Your task to perform on an android device: Open Google Chrome and open the bookmarks view Image 0: 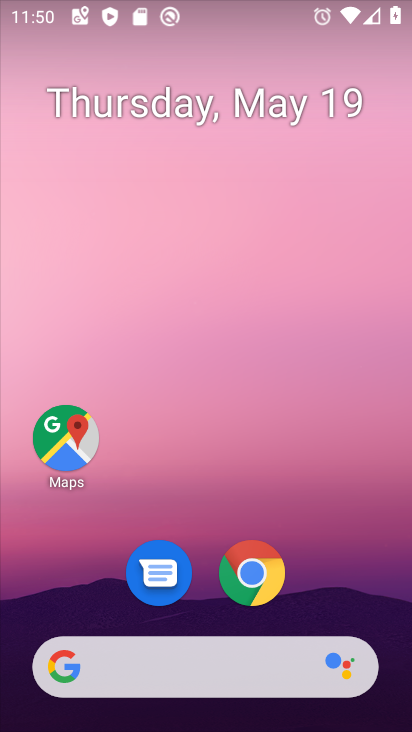
Step 0: click (249, 587)
Your task to perform on an android device: Open Google Chrome and open the bookmarks view Image 1: 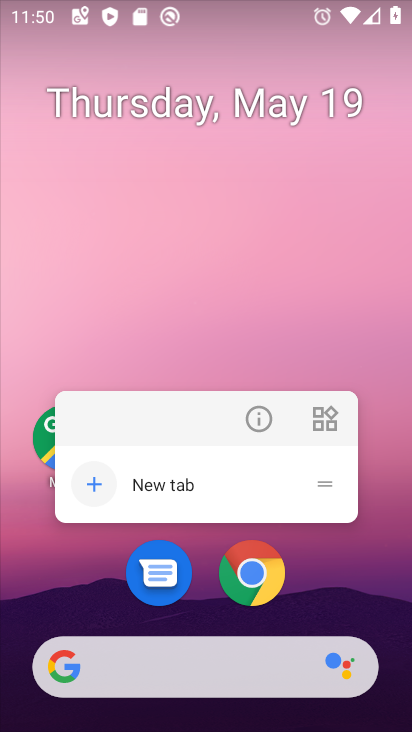
Step 1: click (247, 592)
Your task to perform on an android device: Open Google Chrome and open the bookmarks view Image 2: 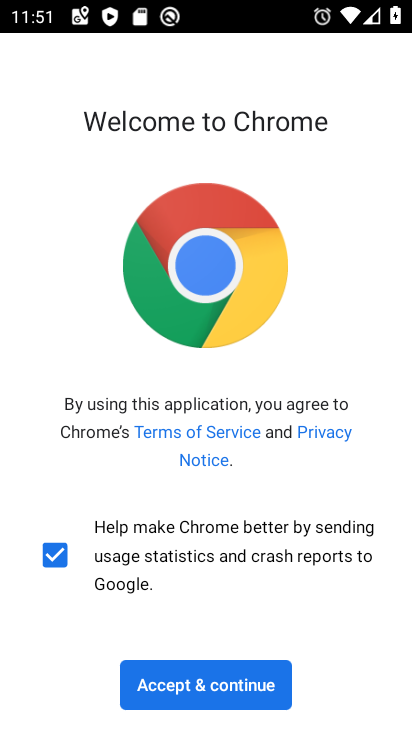
Step 2: click (211, 688)
Your task to perform on an android device: Open Google Chrome and open the bookmarks view Image 3: 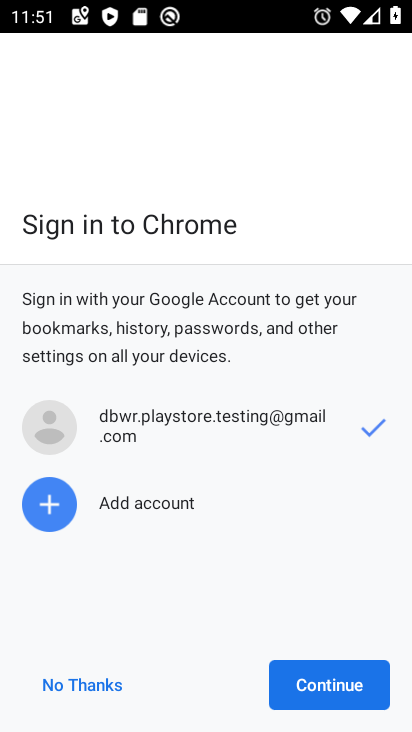
Step 3: click (377, 686)
Your task to perform on an android device: Open Google Chrome and open the bookmarks view Image 4: 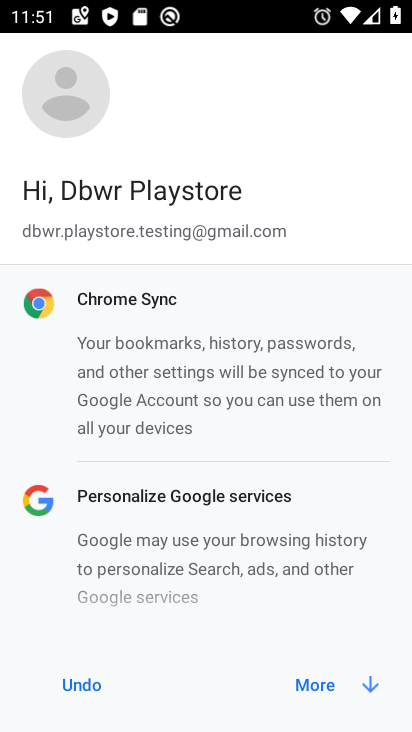
Step 4: click (329, 693)
Your task to perform on an android device: Open Google Chrome and open the bookmarks view Image 5: 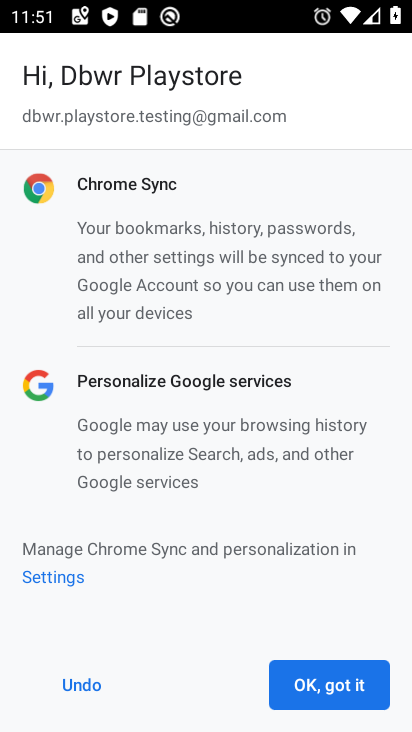
Step 5: click (327, 697)
Your task to perform on an android device: Open Google Chrome and open the bookmarks view Image 6: 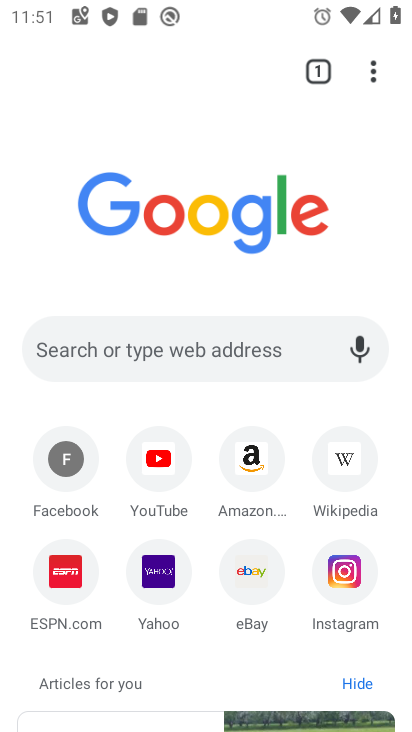
Step 6: click (370, 76)
Your task to perform on an android device: Open Google Chrome and open the bookmarks view Image 7: 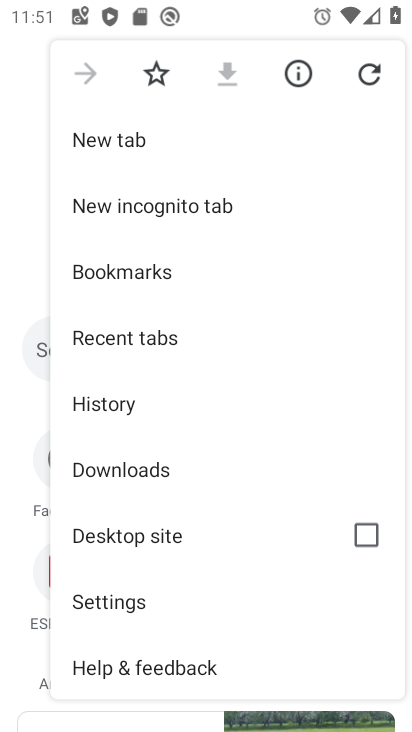
Step 7: click (136, 268)
Your task to perform on an android device: Open Google Chrome and open the bookmarks view Image 8: 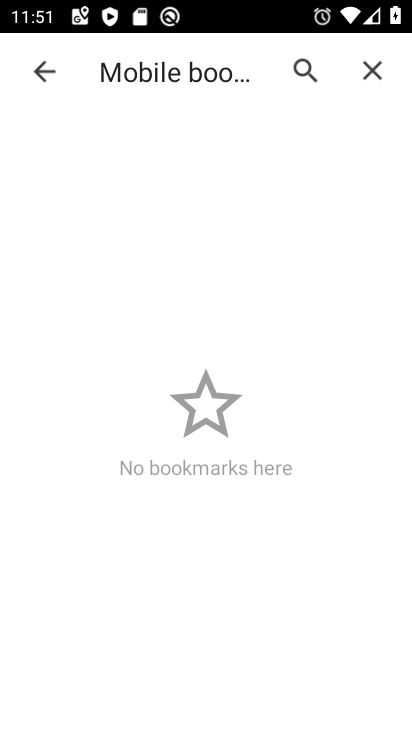
Step 8: task complete